Your task to perform on an android device: remove spam from my inbox in the gmail app Image 0: 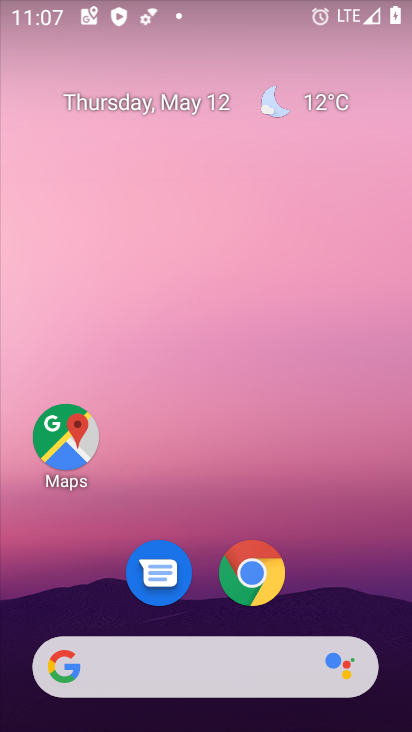
Step 0: drag from (195, 721) to (302, 100)
Your task to perform on an android device: remove spam from my inbox in the gmail app Image 1: 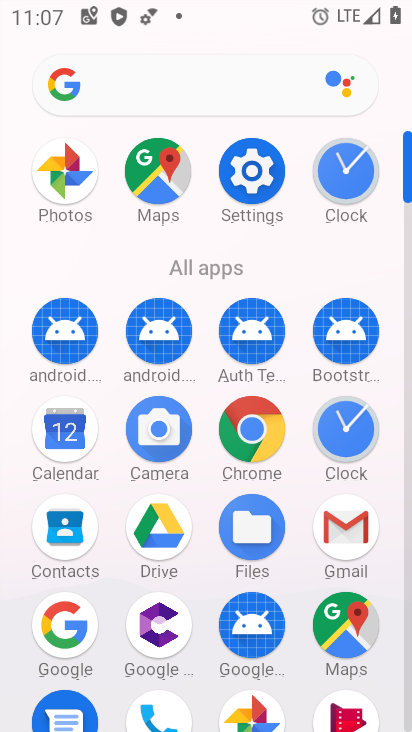
Step 1: click (359, 535)
Your task to perform on an android device: remove spam from my inbox in the gmail app Image 2: 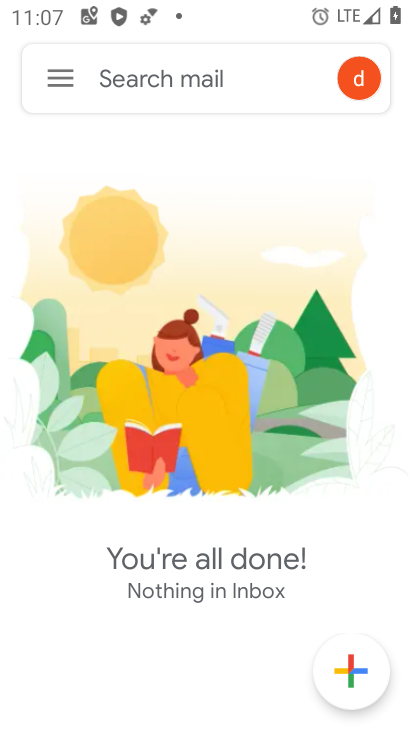
Step 2: click (47, 69)
Your task to perform on an android device: remove spam from my inbox in the gmail app Image 3: 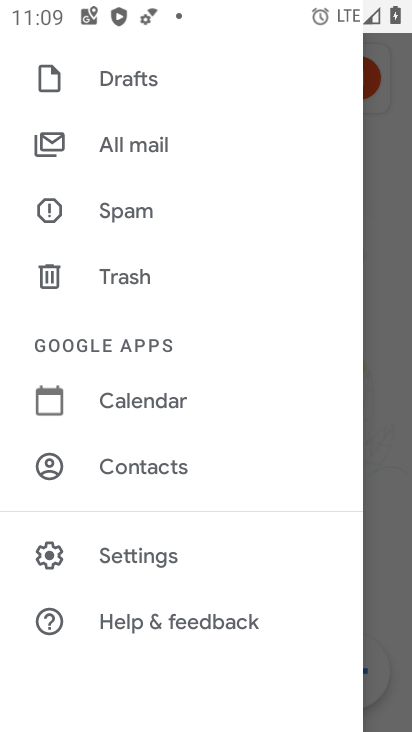
Step 3: click (155, 217)
Your task to perform on an android device: remove spam from my inbox in the gmail app Image 4: 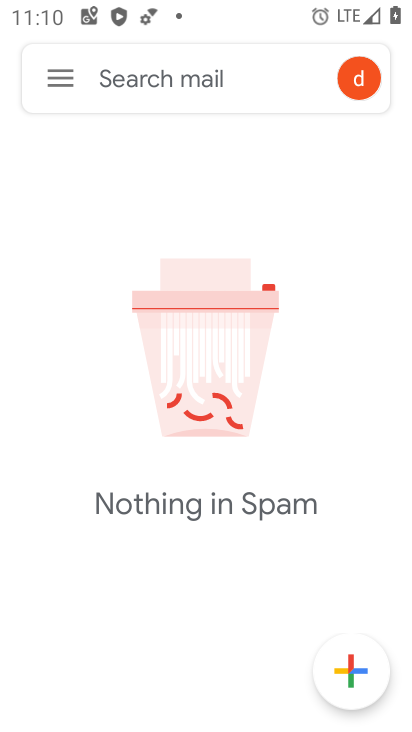
Step 4: task complete